Your task to perform on an android device: Check the news Image 0: 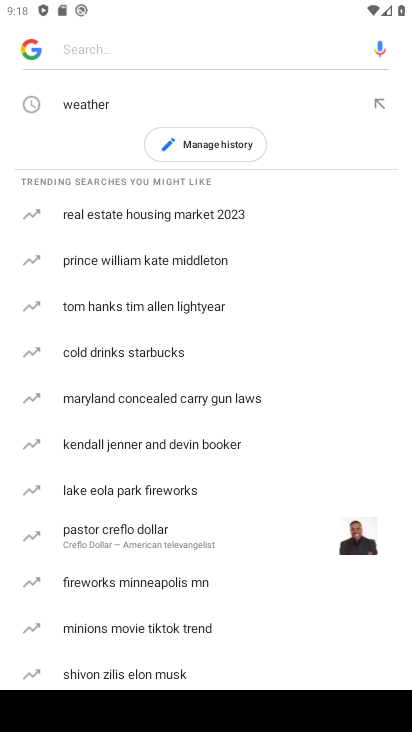
Step 0: press home button
Your task to perform on an android device: Check the news Image 1: 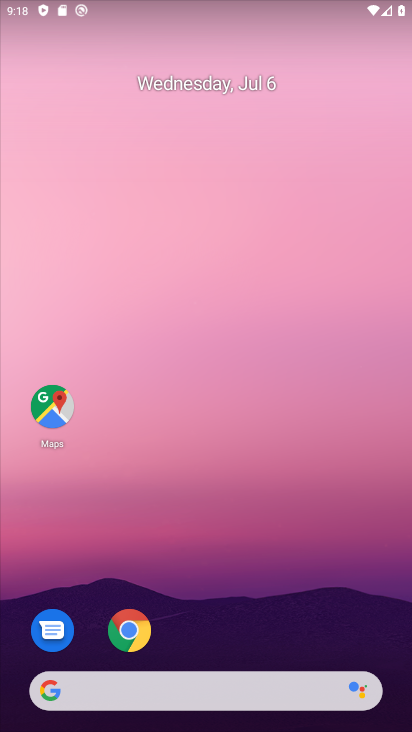
Step 1: task complete